Your task to perform on an android device: Go to network settings Image 0: 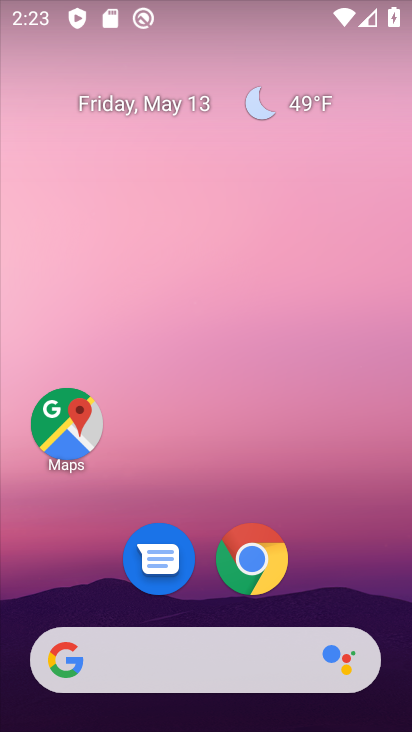
Step 0: drag from (389, 634) to (308, 111)
Your task to perform on an android device: Go to network settings Image 1: 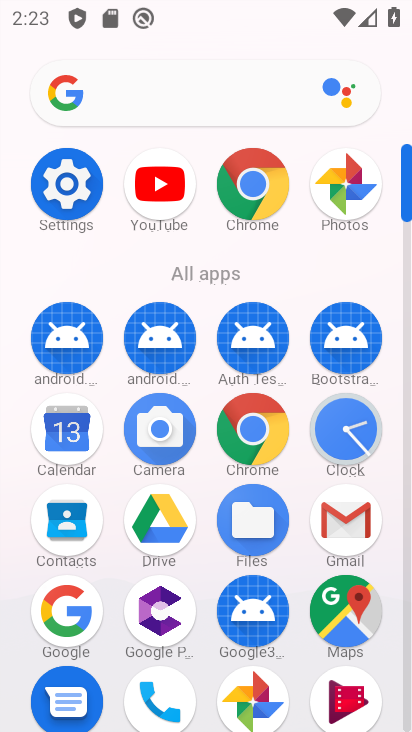
Step 1: click (408, 706)
Your task to perform on an android device: Go to network settings Image 2: 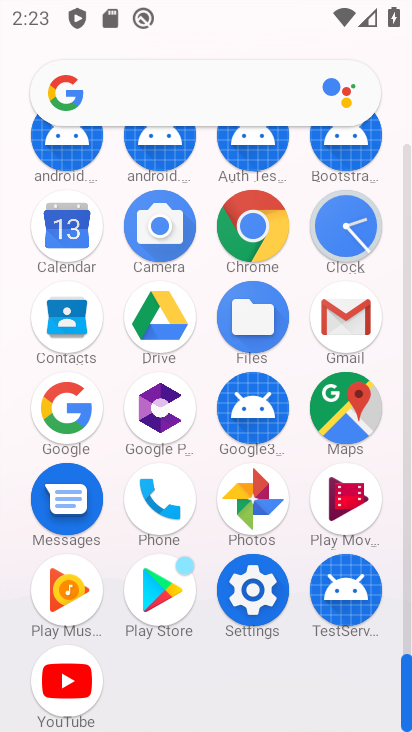
Step 2: click (254, 585)
Your task to perform on an android device: Go to network settings Image 3: 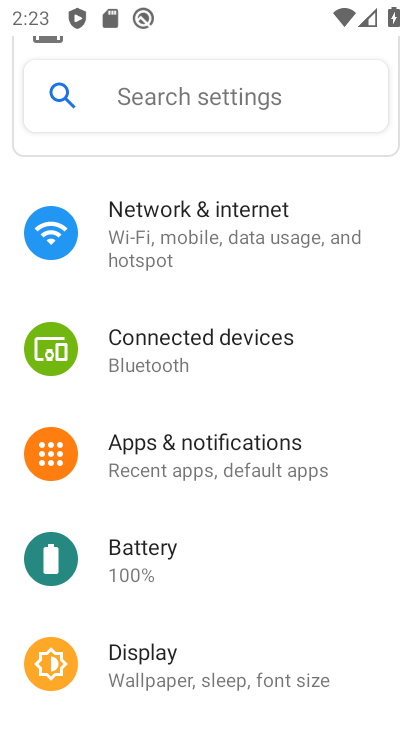
Step 3: click (157, 222)
Your task to perform on an android device: Go to network settings Image 4: 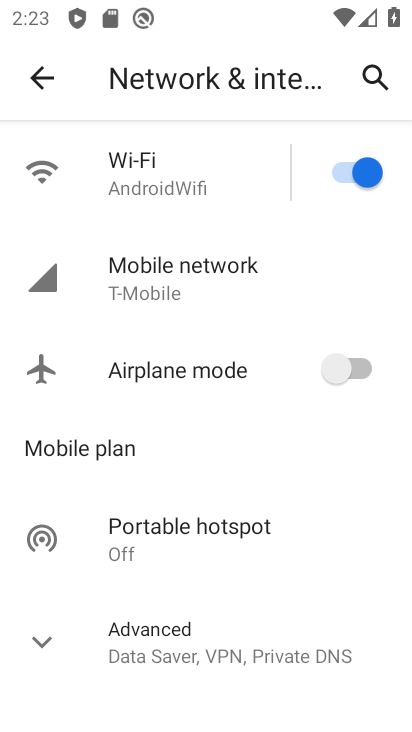
Step 4: click (158, 275)
Your task to perform on an android device: Go to network settings Image 5: 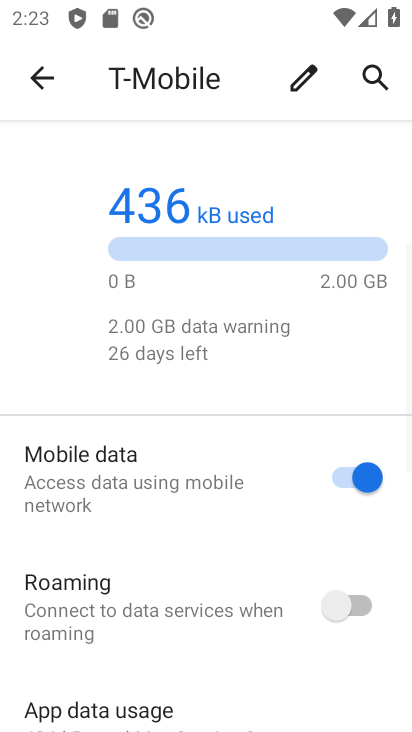
Step 5: drag from (267, 596) to (239, 297)
Your task to perform on an android device: Go to network settings Image 6: 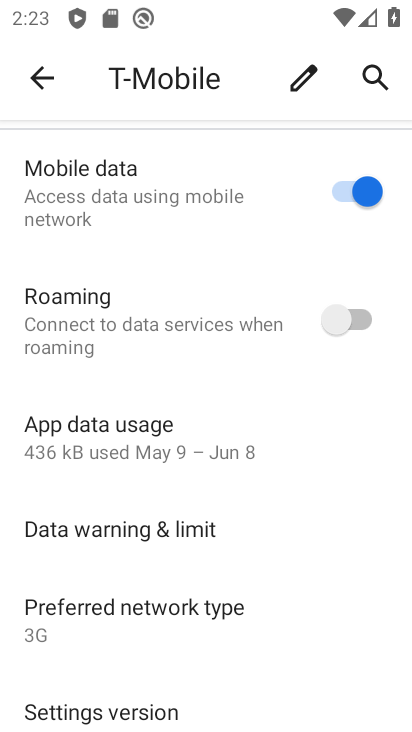
Step 6: drag from (256, 589) to (277, 335)
Your task to perform on an android device: Go to network settings Image 7: 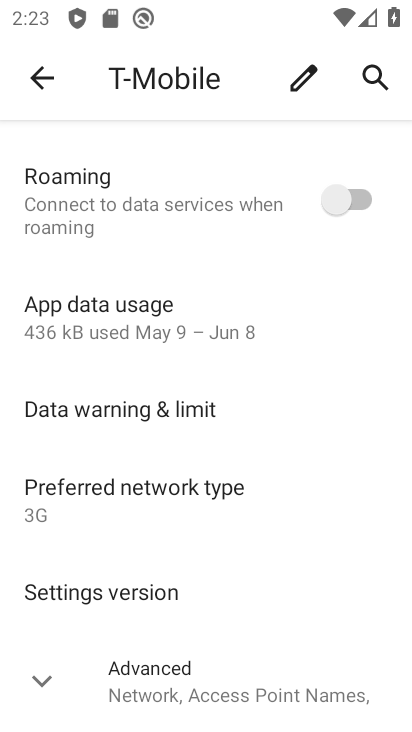
Step 7: click (59, 681)
Your task to perform on an android device: Go to network settings Image 8: 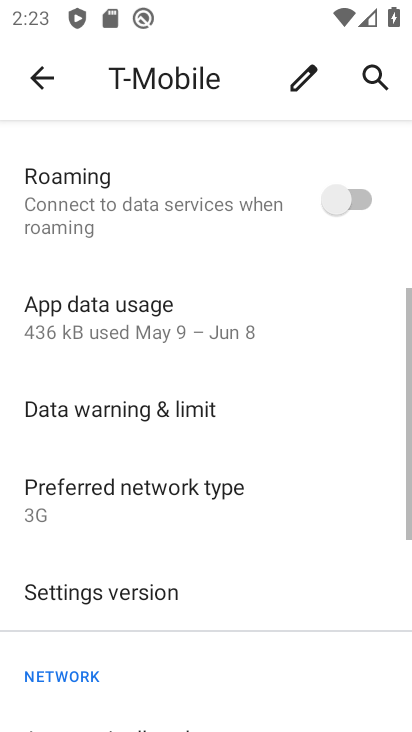
Step 8: task complete